Your task to perform on an android device: Open calendar and show me the fourth week of next month Image 0: 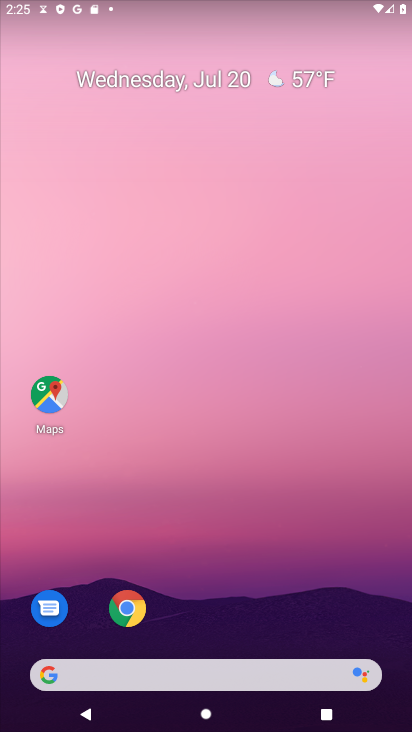
Step 0: drag from (160, 585) to (168, 103)
Your task to perform on an android device: Open calendar and show me the fourth week of next month Image 1: 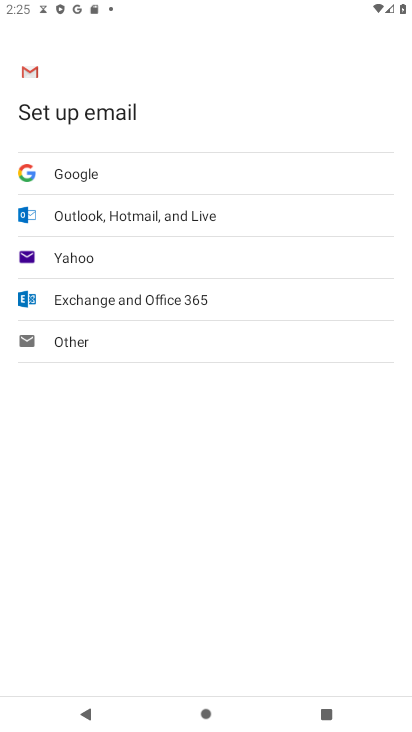
Step 1: press back button
Your task to perform on an android device: Open calendar and show me the fourth week of next month Image 2: 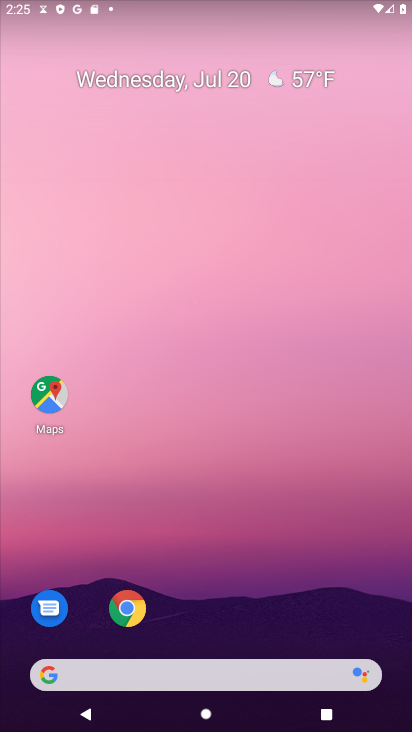
Step 2: drag from (175, 480) to (171, 54)
Your task to perform on an android device: Open calendar and show me the fourth week of next month Image 3: 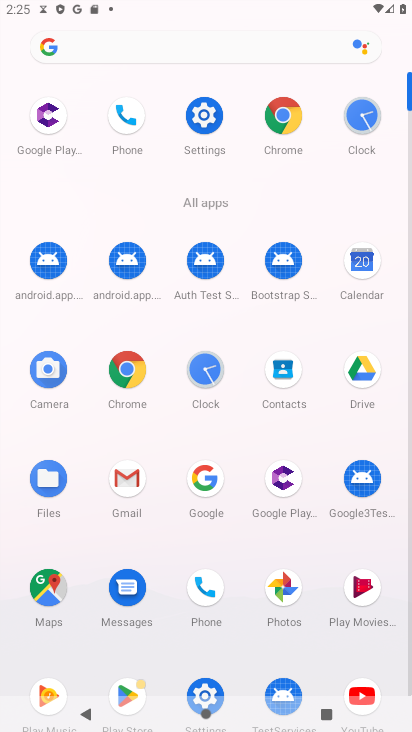
Step 3: click (366, 292)
Your task to perform on an android device: Open calendar and show me the fourth week of next month Image 4: 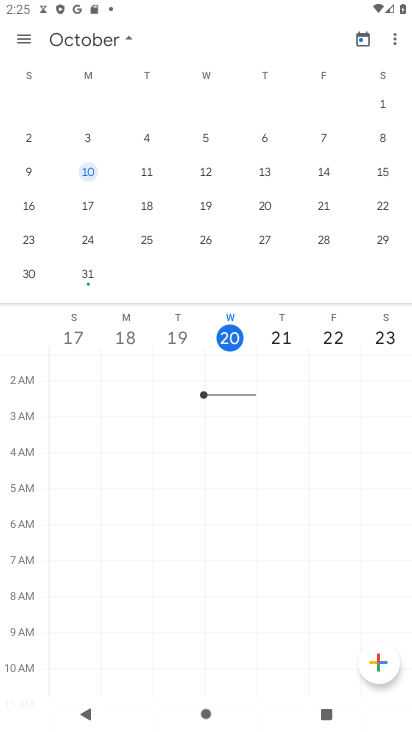
Step 4: click (87, 37)
Your task to perform on an android device: Open calendar and show me the fourth week of next month Image 5: 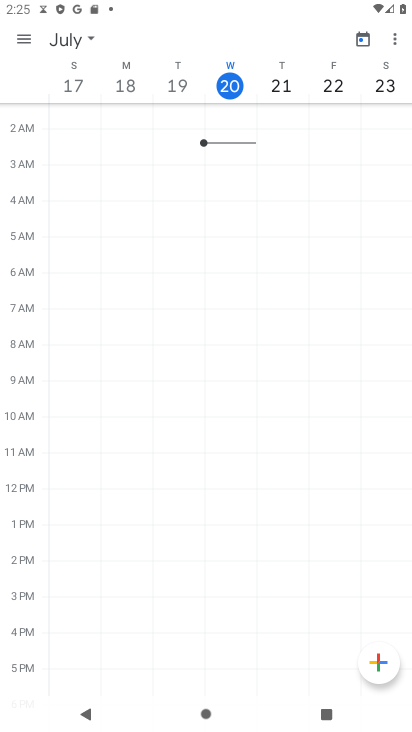
Step 5: click (87, 37)
Your task to perform on an android device: Open calendar and show me the fourth week of next month Image 6: 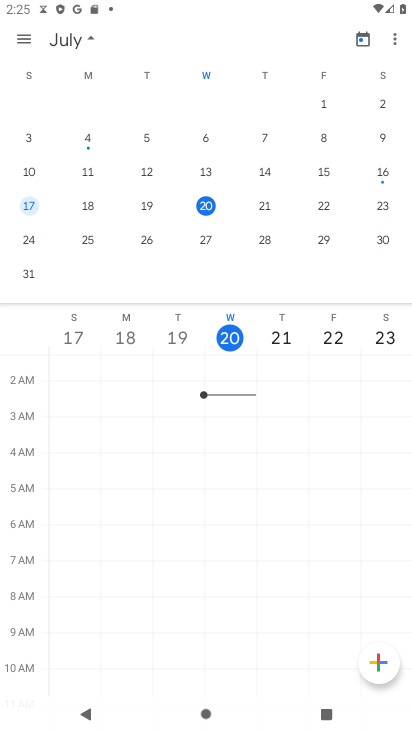
Step 6: drag from (322, 200) to (28, 183)
Your task to perform on an android device: Open calendar and show me the fourth week of next month Image 7: 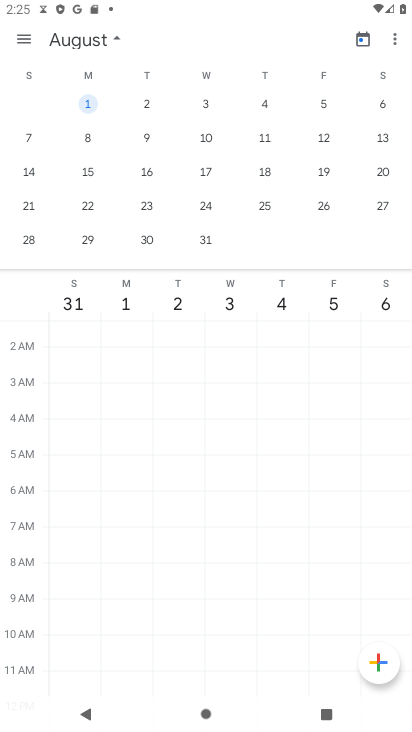
Step 7: click (22, 205)
Your task to perform on an android device: Open calendar and show me the fourth week of next month Image 8: 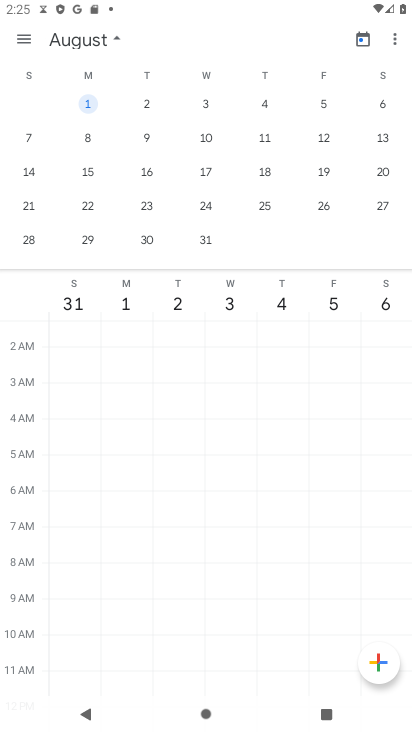
Step 8: click (22, 205)
Your task to perform on an android device: Open calendar and show me the fourth week of next month Image 9: 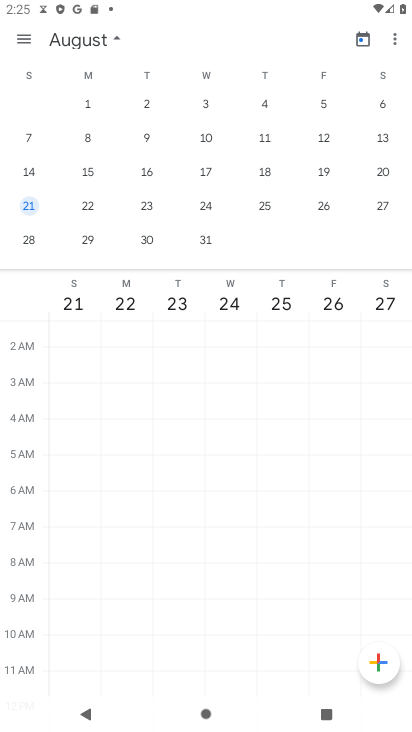
Step 9: task complete